Your task to perform on an android device: Set the phone to "Do not disturb". Image 0: 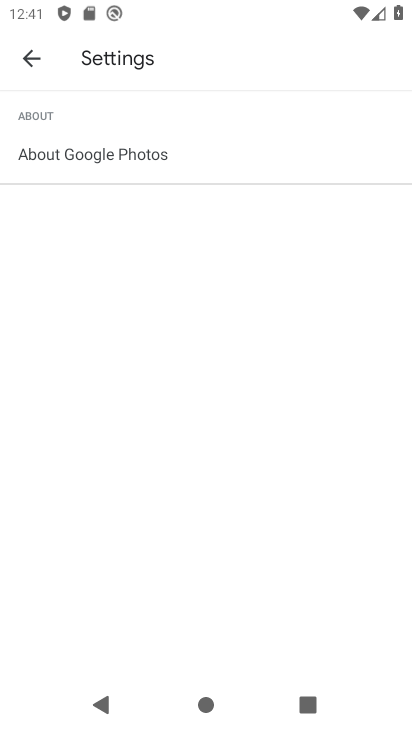
Step 0: press back button
Your task to perform on an android device: Set the phone to "Do not disturb". Image 1: 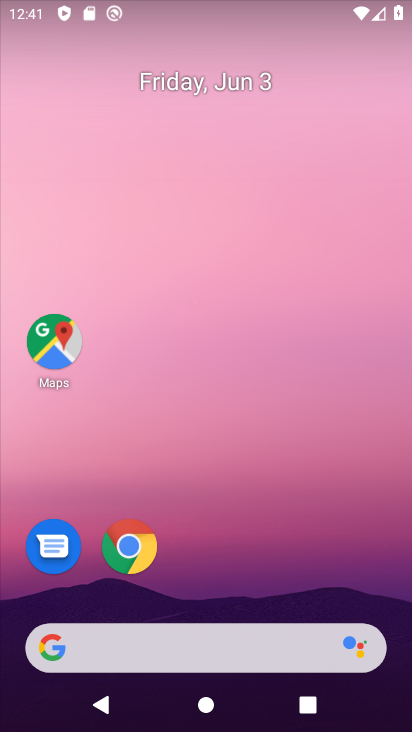
Step 1: drag from (265, 577) to (221, 130)
Your task to perform on an android device: Set the phone to "Do not disturb". Image 2: 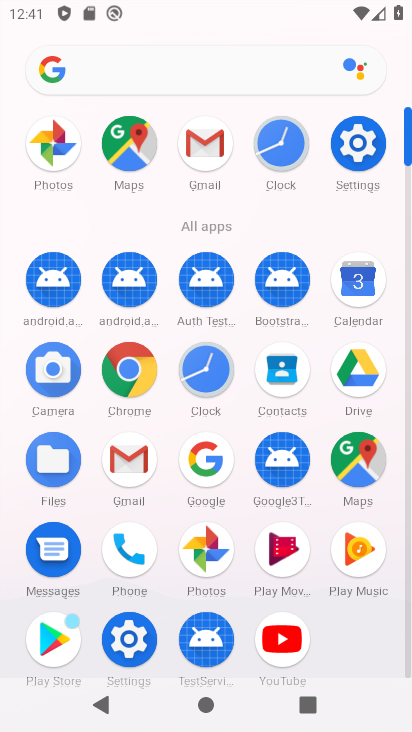
Step 2: click (358, 142)
Your task to perform on an android device: Set the phone to "Do not disturb". Image 3: 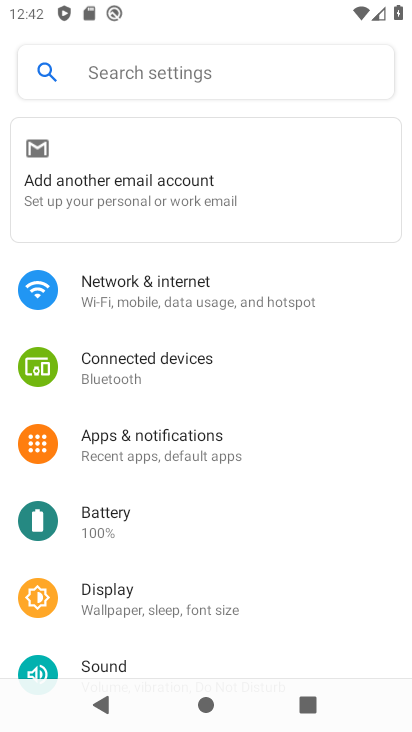
Step 3: drag from (161, 512) to (181, 438)
Your task to perform on an android device: Set the phone to "Do not disturb". Image 4: 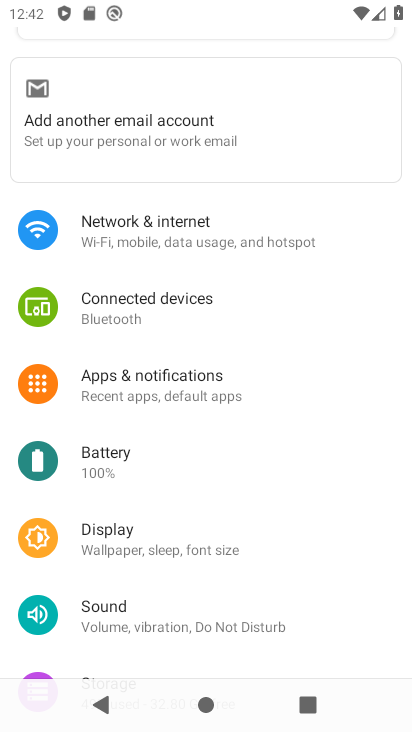
Step 4: drag from (165, 562) to (257, 448)
Your task to perform on an android device: Set the phone to "Do not disturb". Image 5: 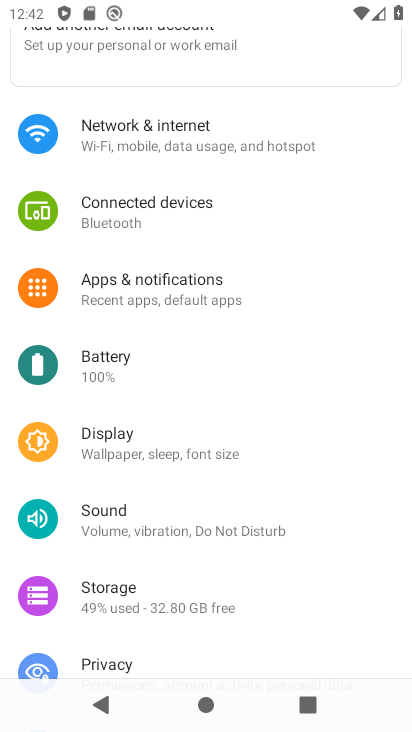
Step 5: click (217, 528)
Your task to perform on an android device: Set the phone to "Do not disturb". Image 6: 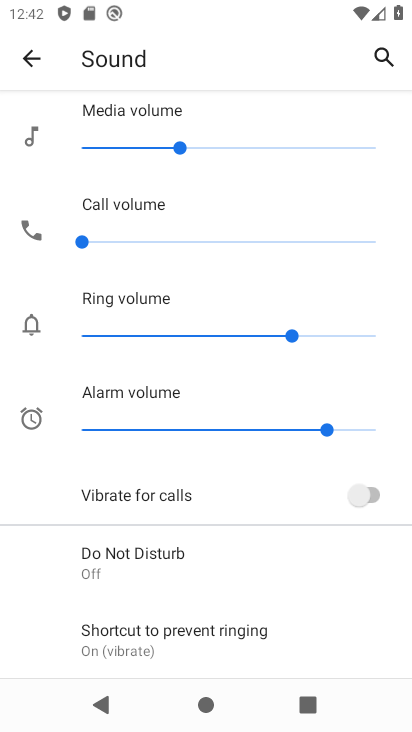
Step 6: click (118, 555)
Your task to perform on an android device: Set the phone to "Do not disturb". Image 7: 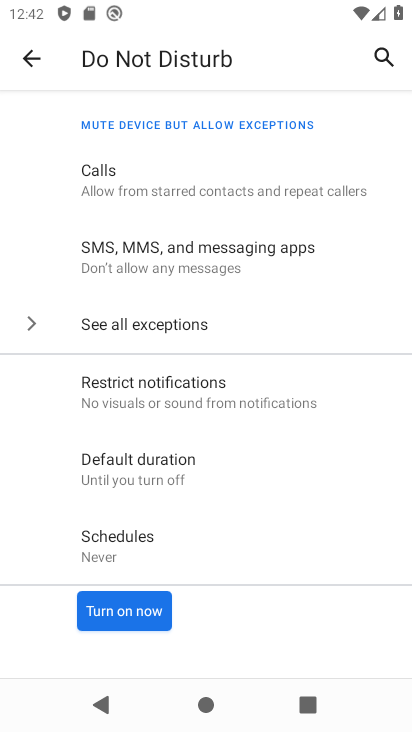
Step 7: click (137, 614)
Your task to perform on an android device: Set the phone to "Do not disturb". Image 8: 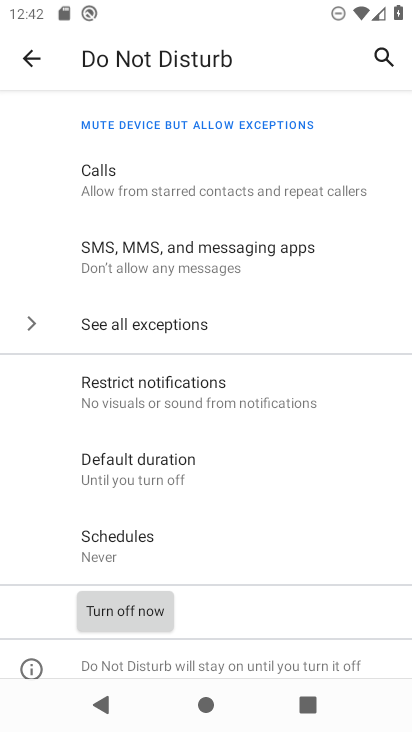
Step 8: task complete